Your task to perform on an android device: Search for Italian restaurants on Maps Image 0: 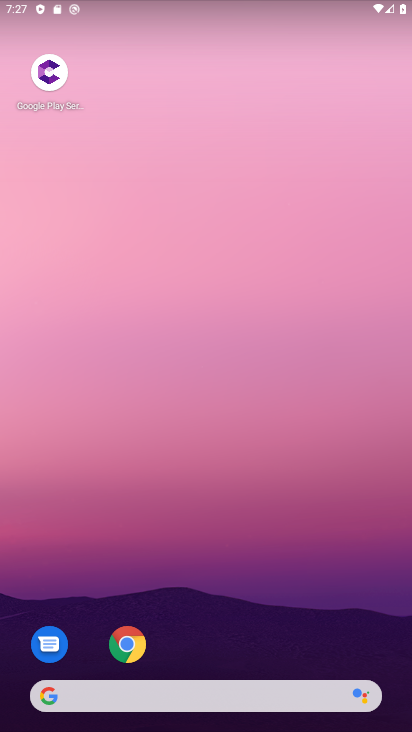
Step 0: drag from (226, 584) to (221, 201)
Your task to perform on an android device: Search for Italian restaurants on Maps Image 1: 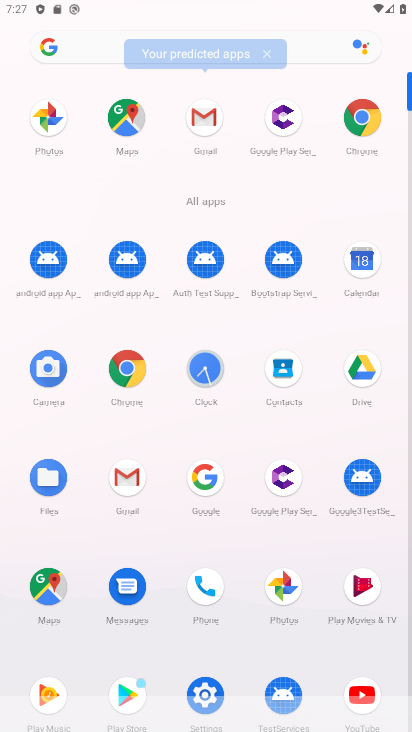
Step 1: click (48, 589)
Your task to perform on an android device: Search for Italian restaurants on Maps Image 2: 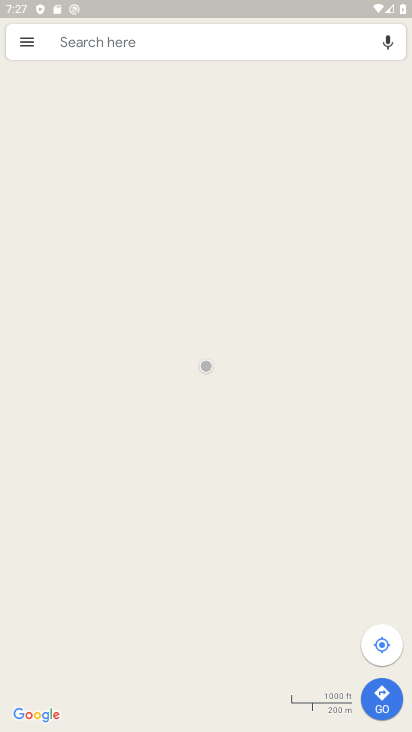
Step 2: click (152, 45)
Your task to perform on an android device: Search for Italian restaurants on Maps Image 3: 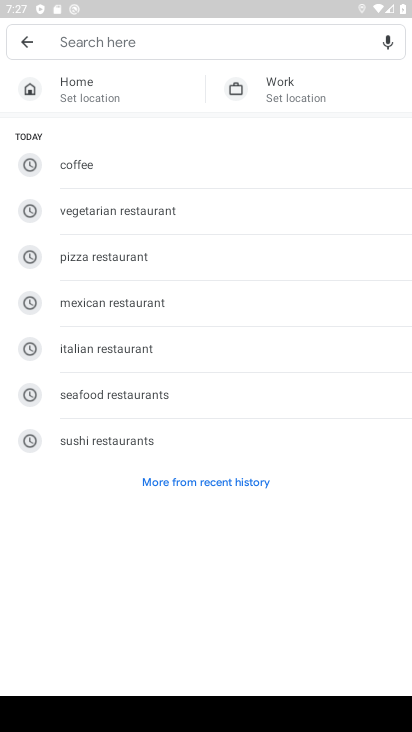
Step 3: type "Italian restaurants"
Your task to perform on an android device: Search for Italian restaurants on Maps Image 4: 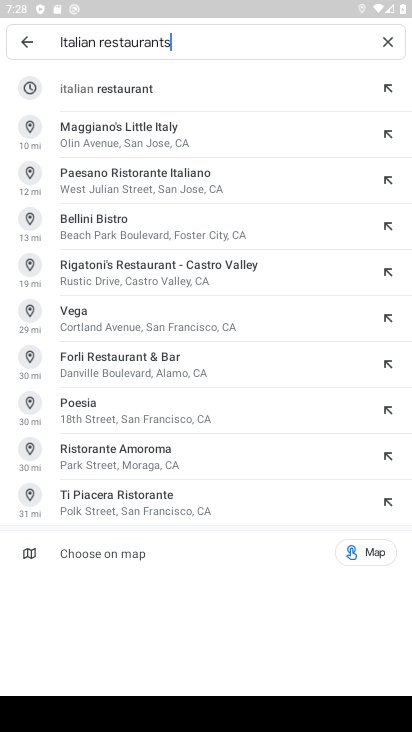
Step 4: click (130, 89)
Your task to perform on an android device: Search for Italian restaurants on Maps Image 5: 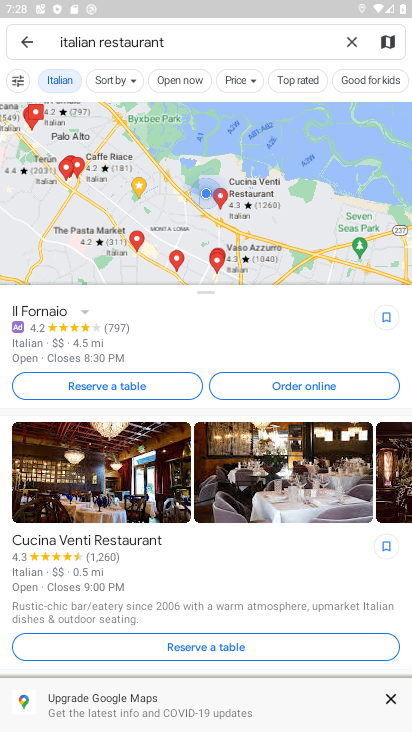
Step 5: task complete